Your task to perform on an android device: Search for "razer blade" on amazon, select the first entry, and add it to the cart. Image 0: 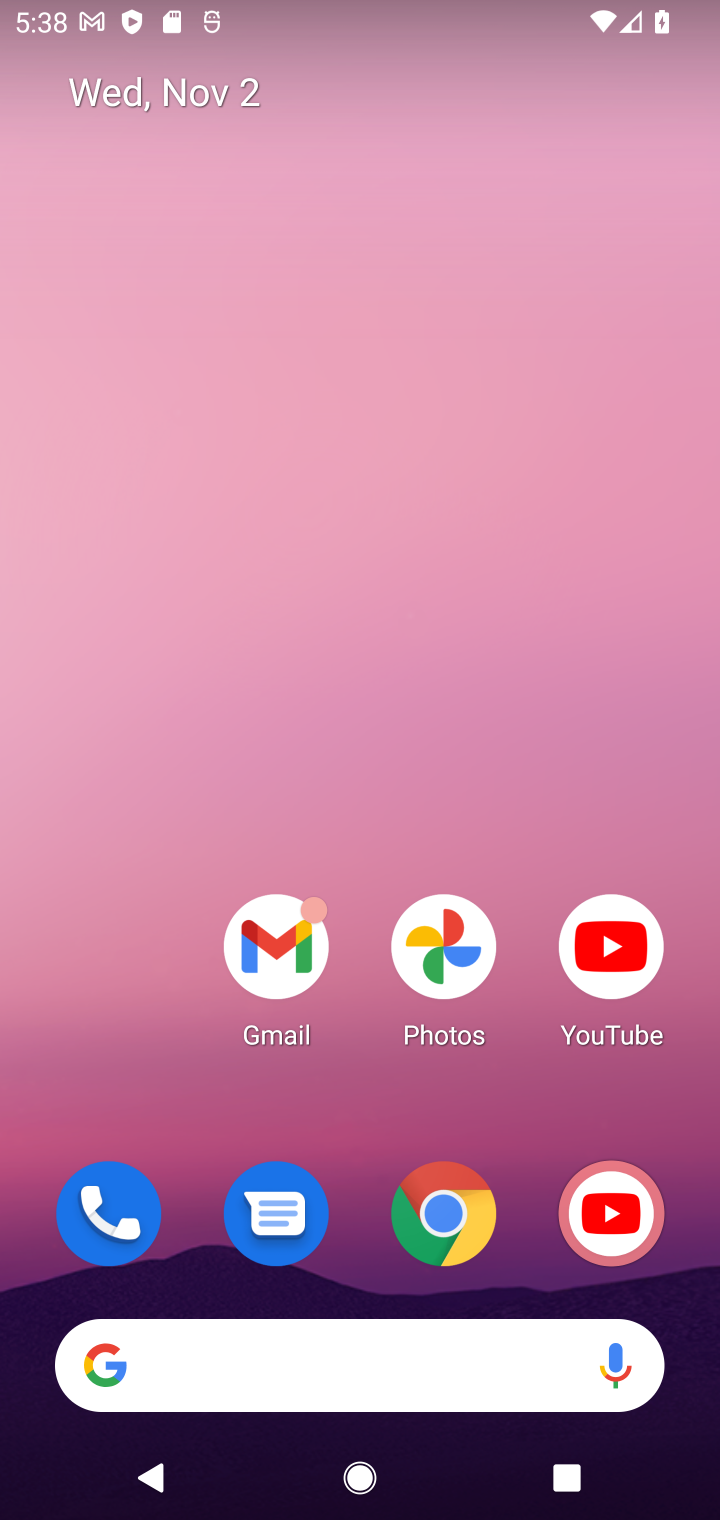
Step 0: click (443, 1218)
Your task to perform on an android device: Search for "razer blade" on amazon, select the first entry, and add it to the cart. Image 1: 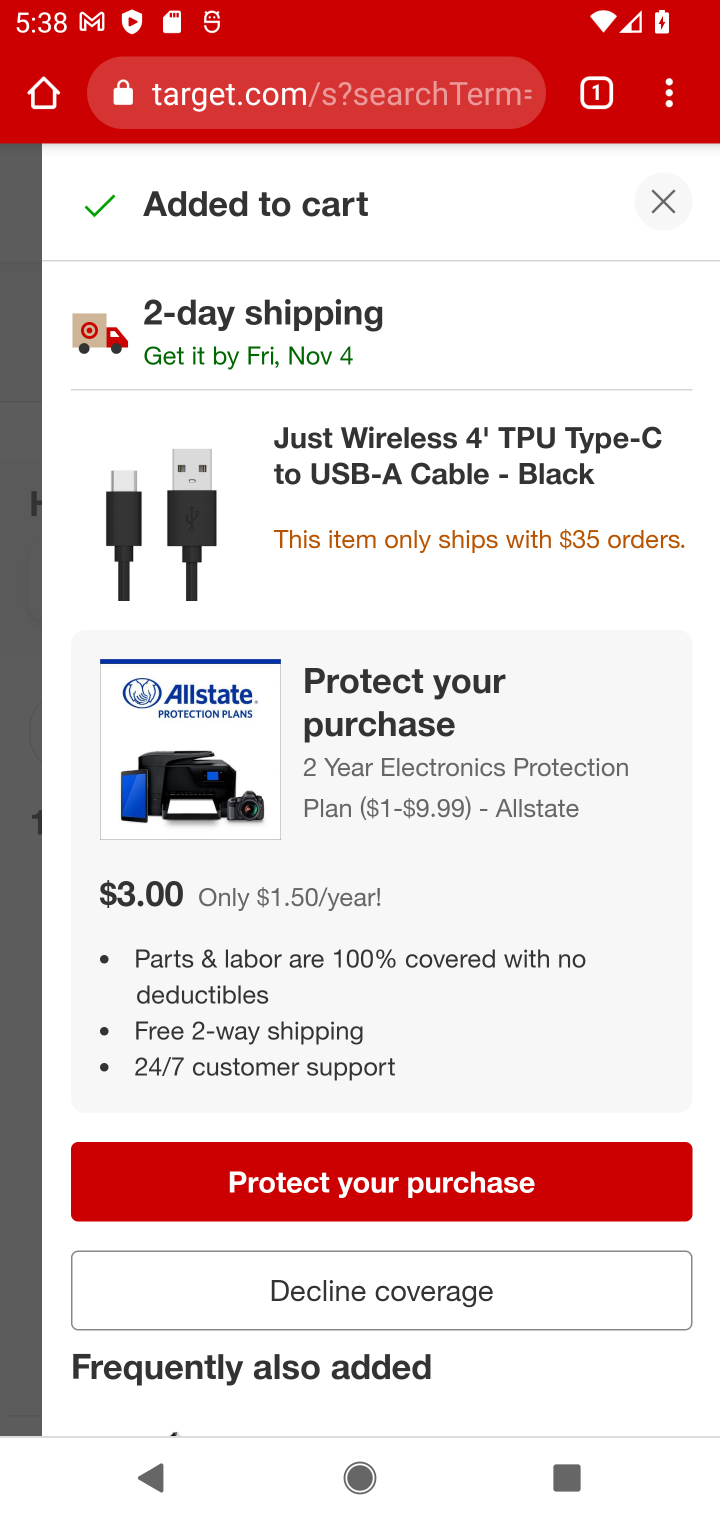
Step 1: click (371, 58)
Your task to perform on an android device: Search for "razer blade" on amazon, select the first entry, and add it to the cart. Image 2: 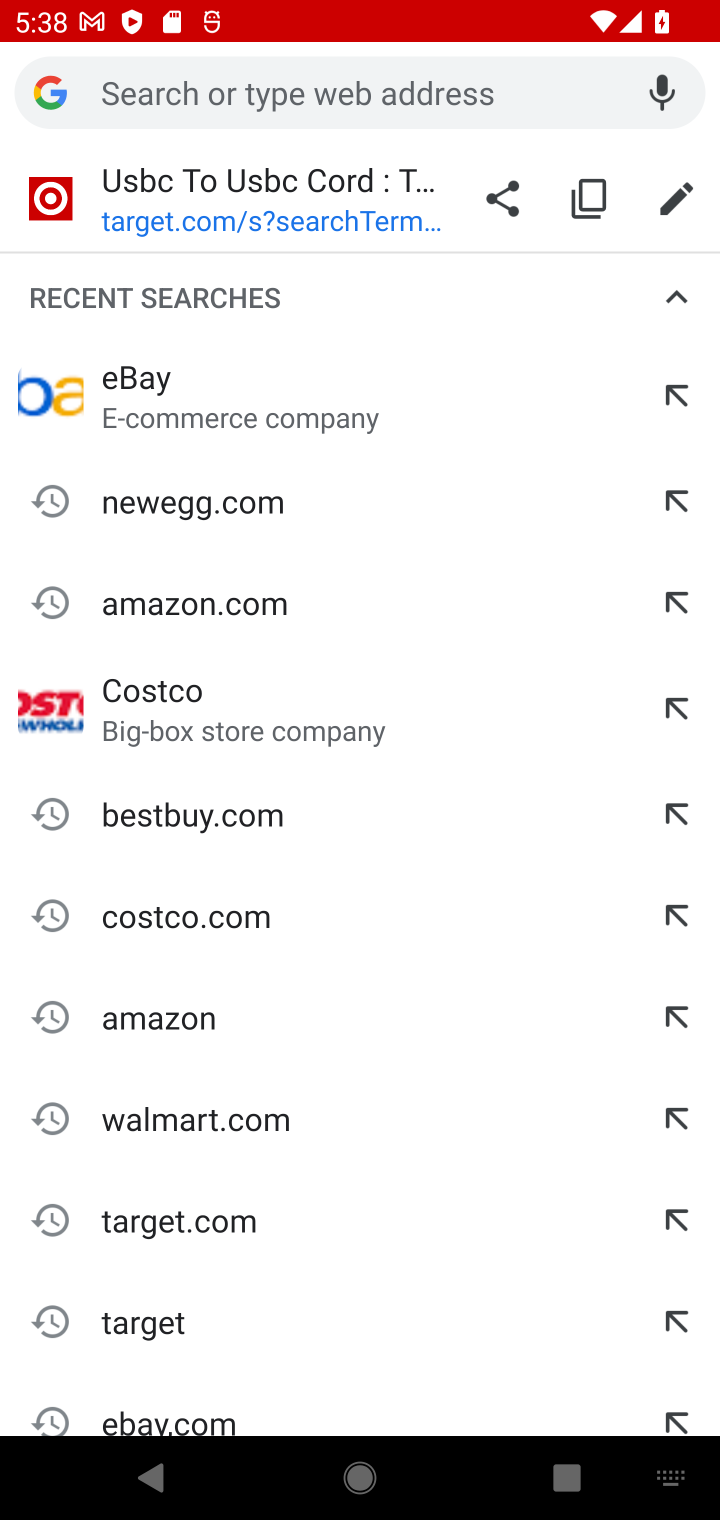
Step 2: type "amazon"
Your task to perform on an android device: Search for "razer blade" on amazon, select the first entry, and add it to the cart. Image 3: 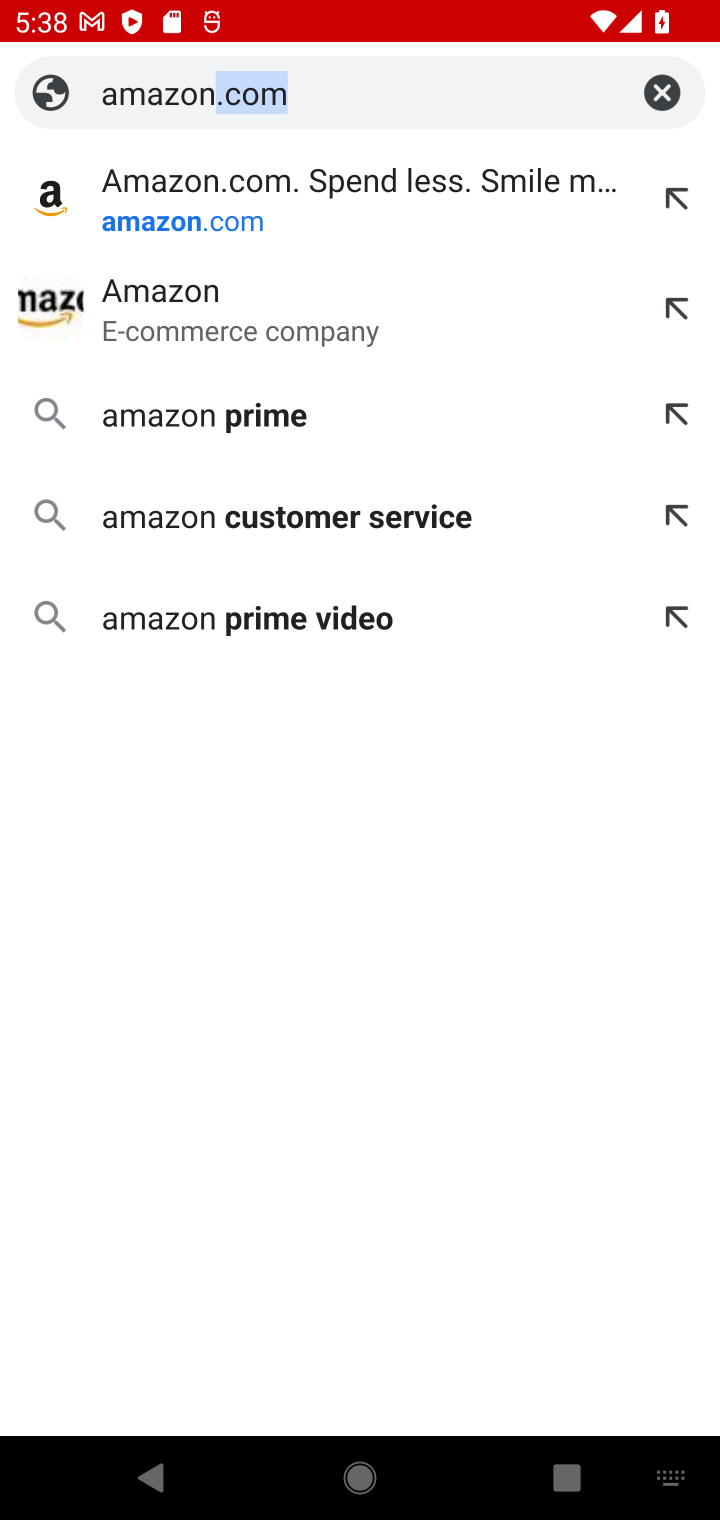
Step 3: click (176, 188)
Your task to perform on an android device: Search for "razer blade" on amazon, select the first entry, and add it to the cart. Image 4: 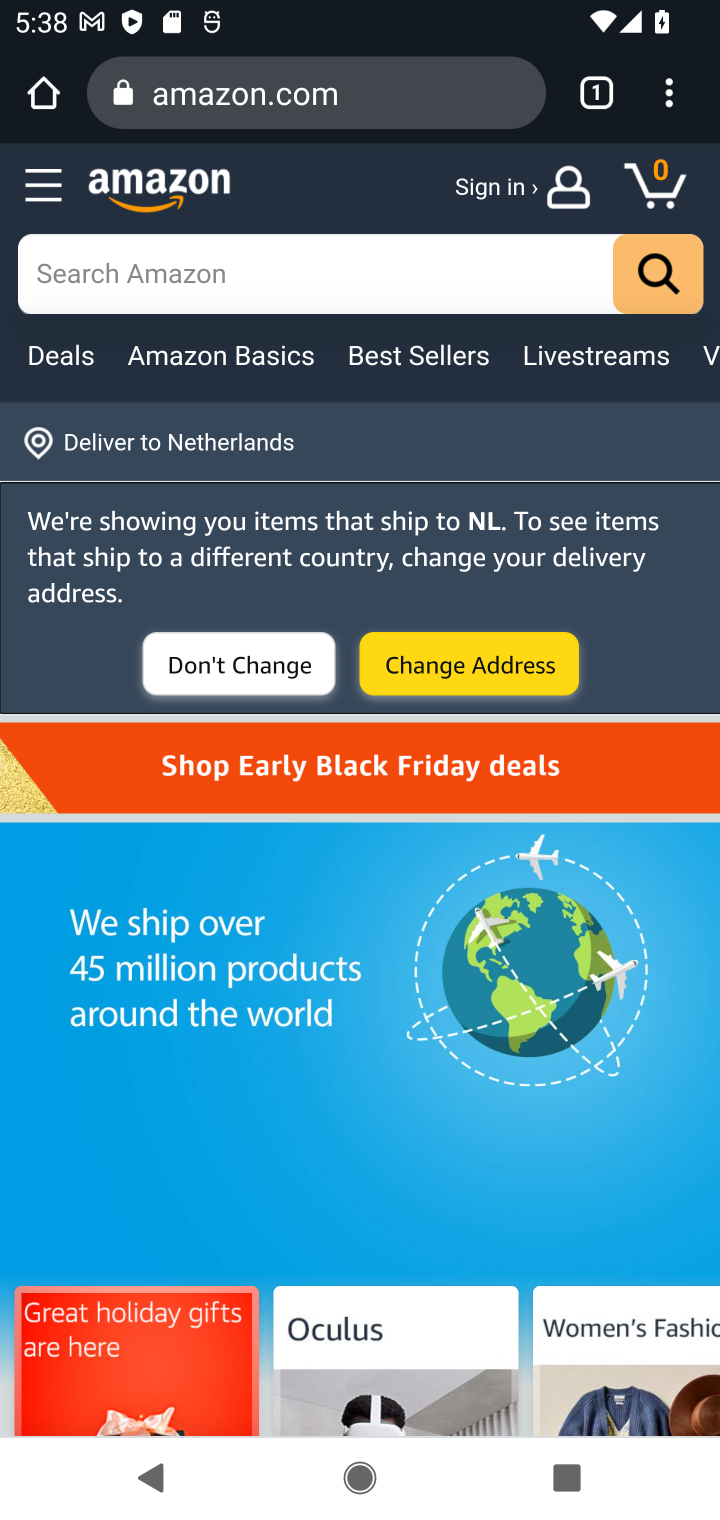
Step 4: click (206, 263)
Your task to perform on an android device: Search for "razer blade" on amazon, select the first entry, and add it to the cart. Image 5: 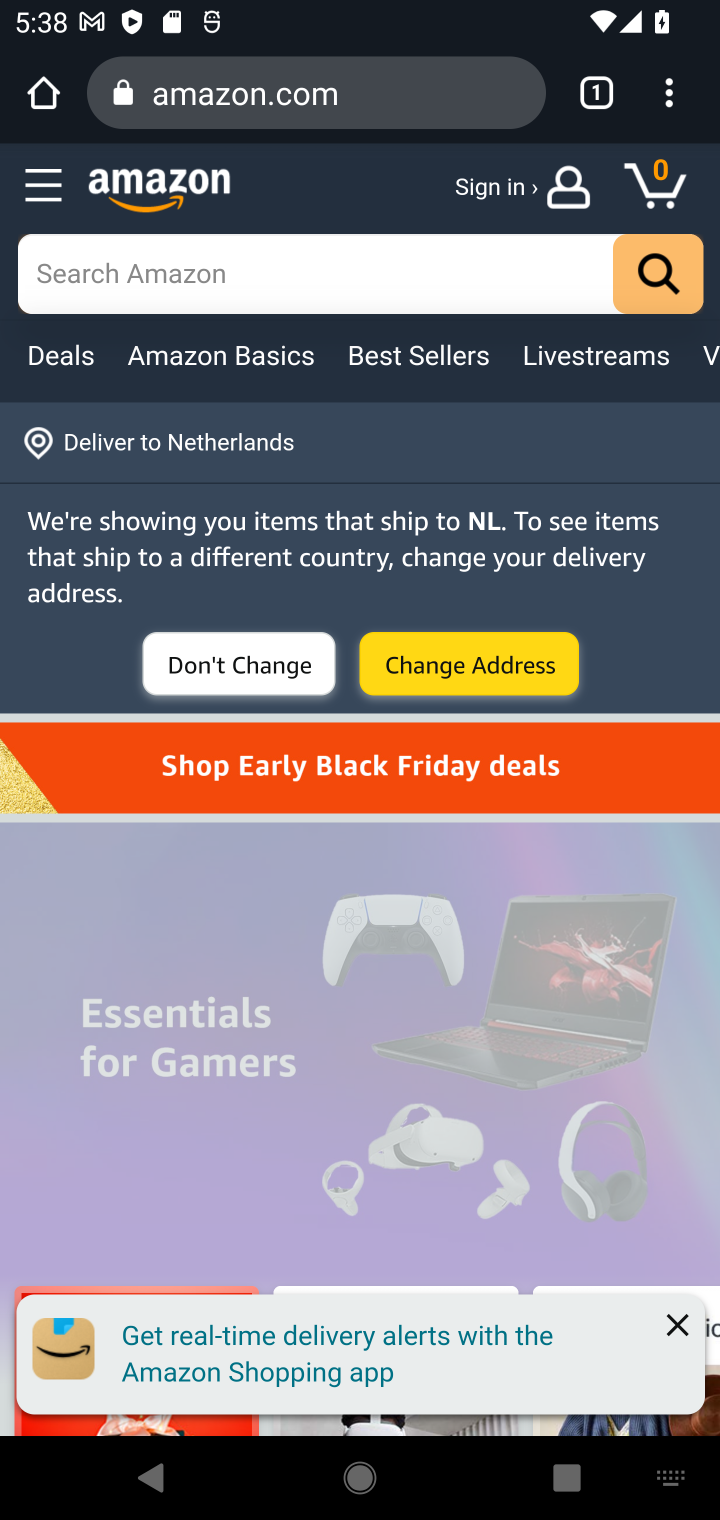
Step 5: click (237, 256)
Your task to perform on an android device: Search for "razer blade" on amazon, select the first entry, and add it to the cart. Image 6: 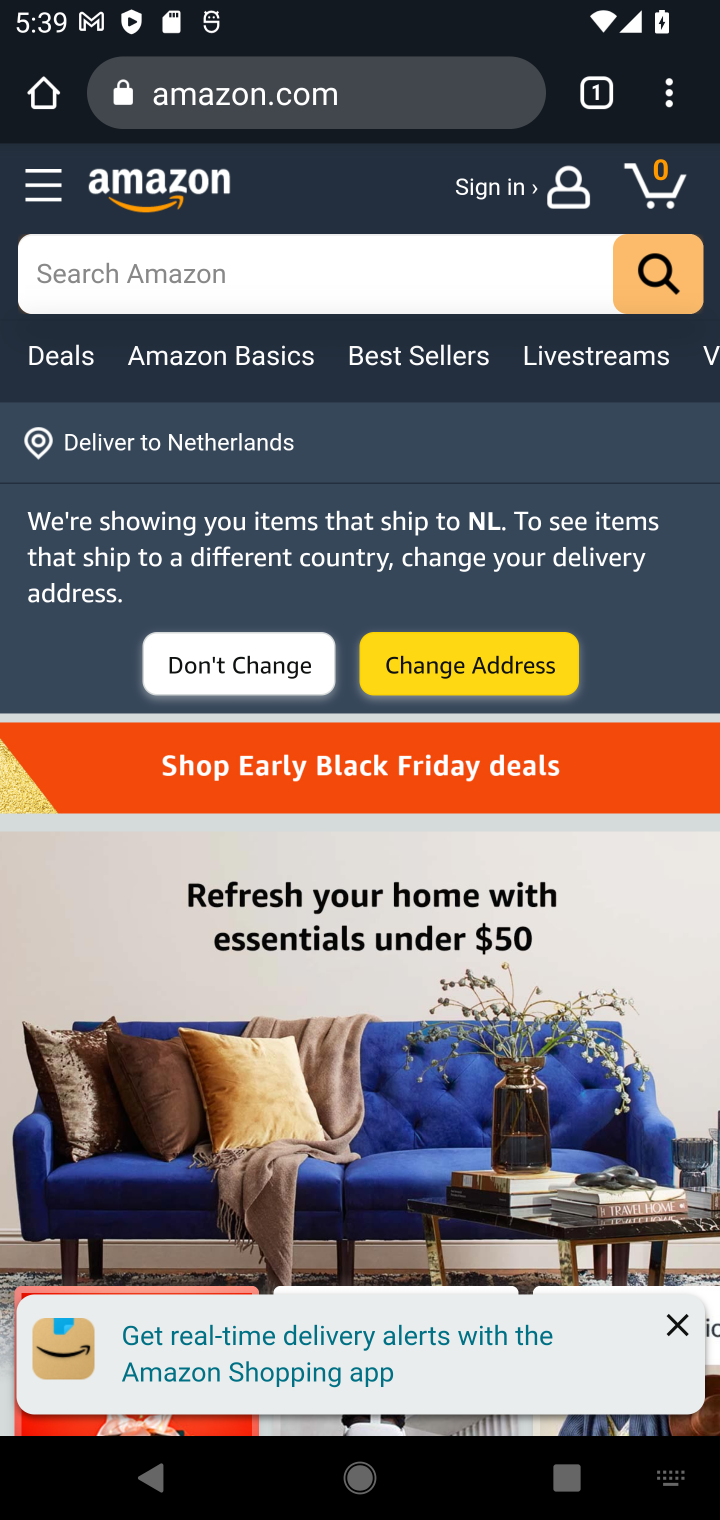
Step 6: type "razer blade"
Your task to perform on an android device: Search for "razer blade" on amazon, select the first entry, and add it to the cart. Image 7: 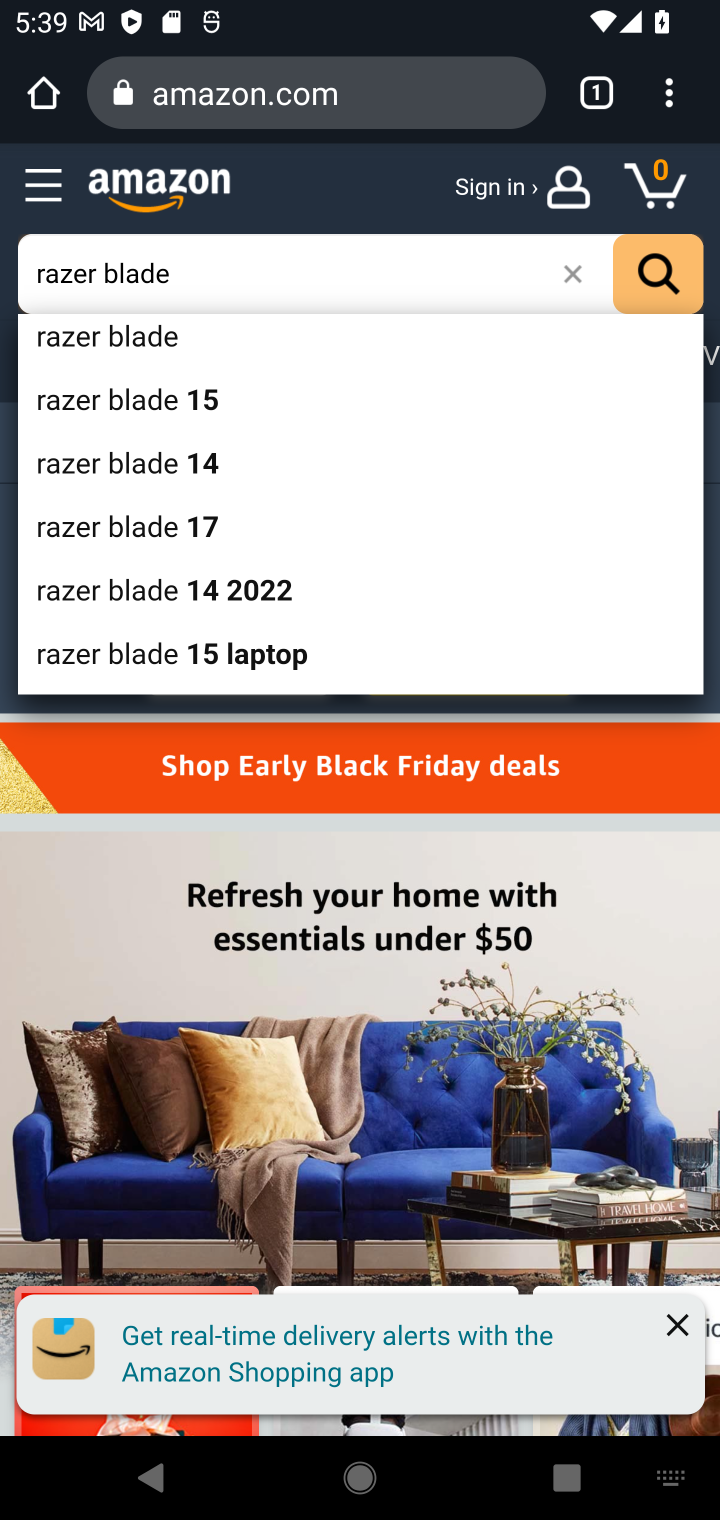
Step 7: click (99, 315)
Your task to perform on an android device: Search for "razer blade" on amazon, select the first entry, and add it to the cart. Image 8: 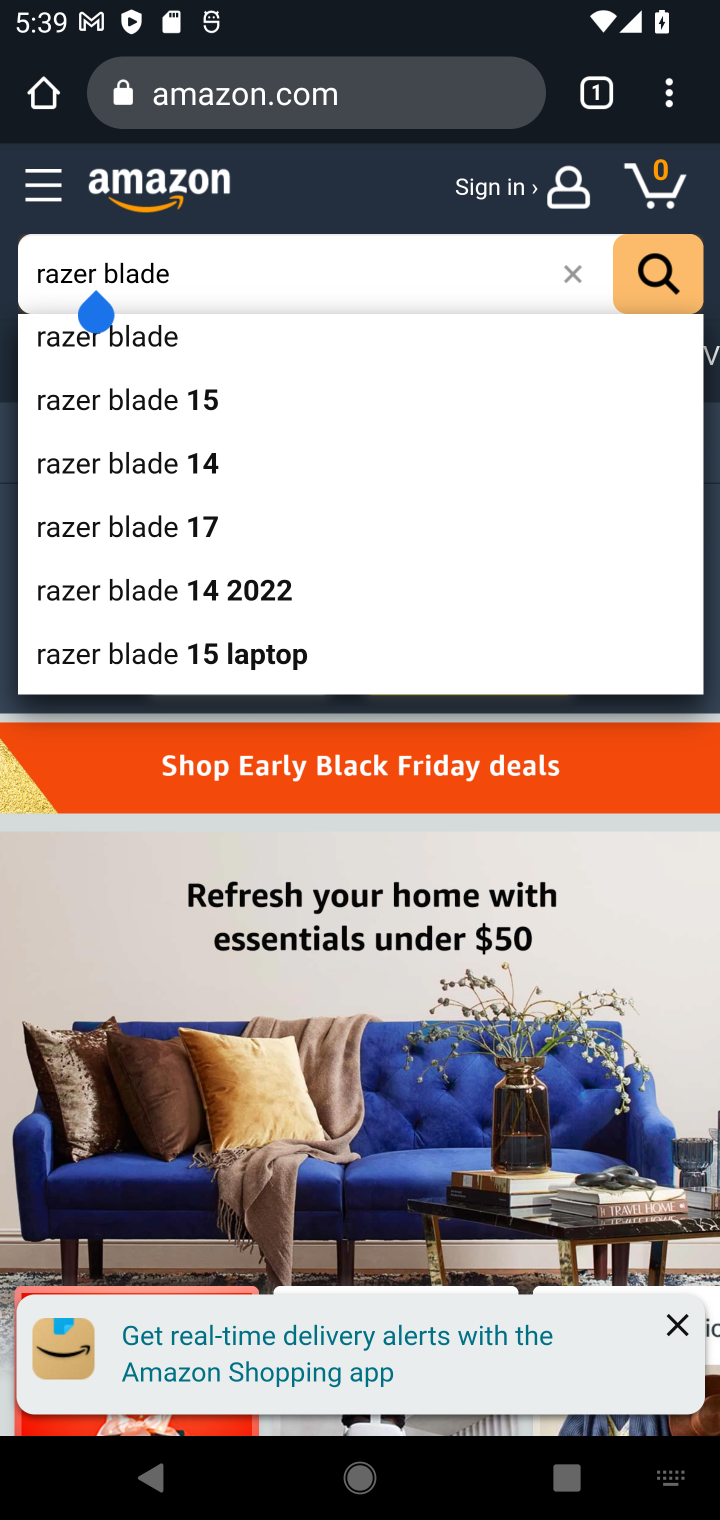
Step 8: click (132, 332)
Your task to perform on an android device: Search for "razer blade" on amazon, select the first entry, and add it to the cart. Image 9: 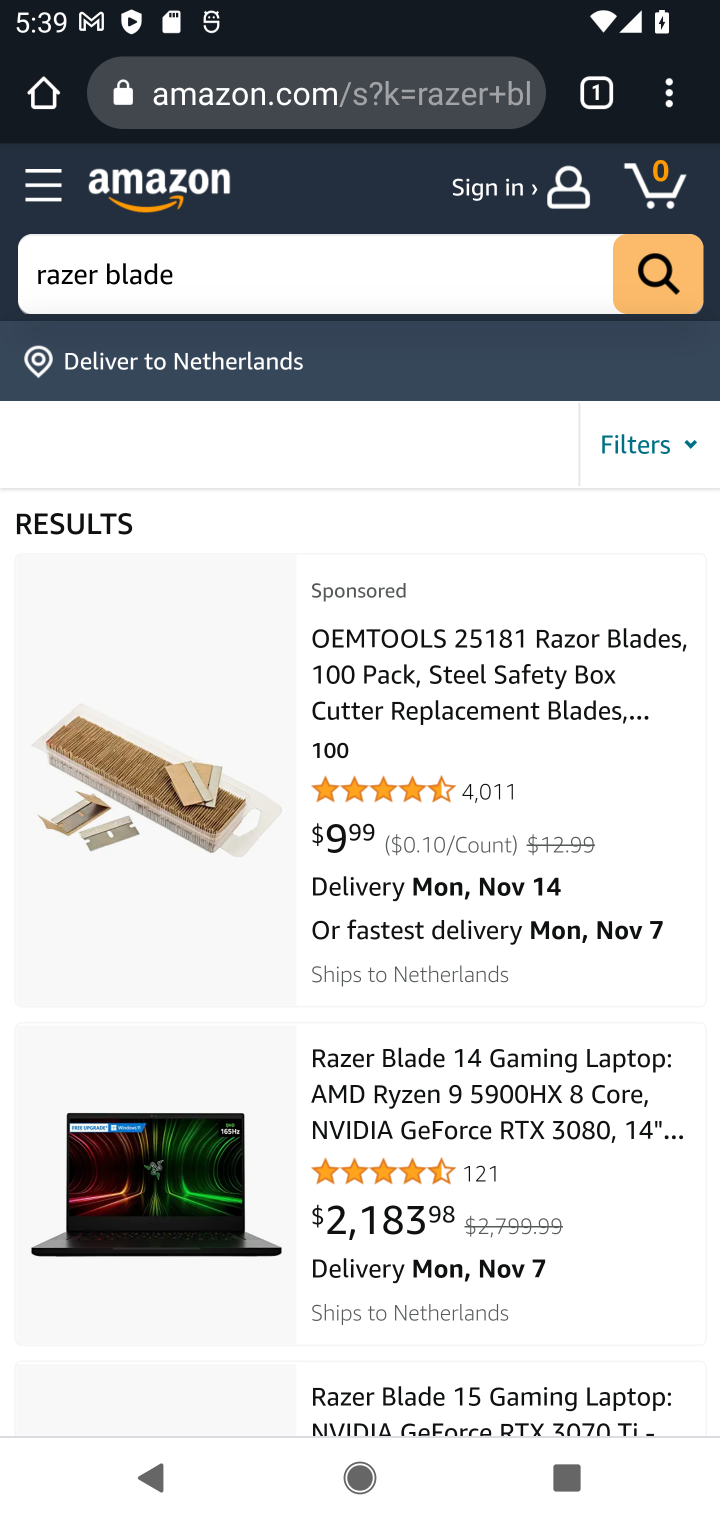
Step 9: click (411, 1071)
Your task to perform on an android device: Search for "razer blade" on amazon, select the first entry, and add it to the cart. Image 10: 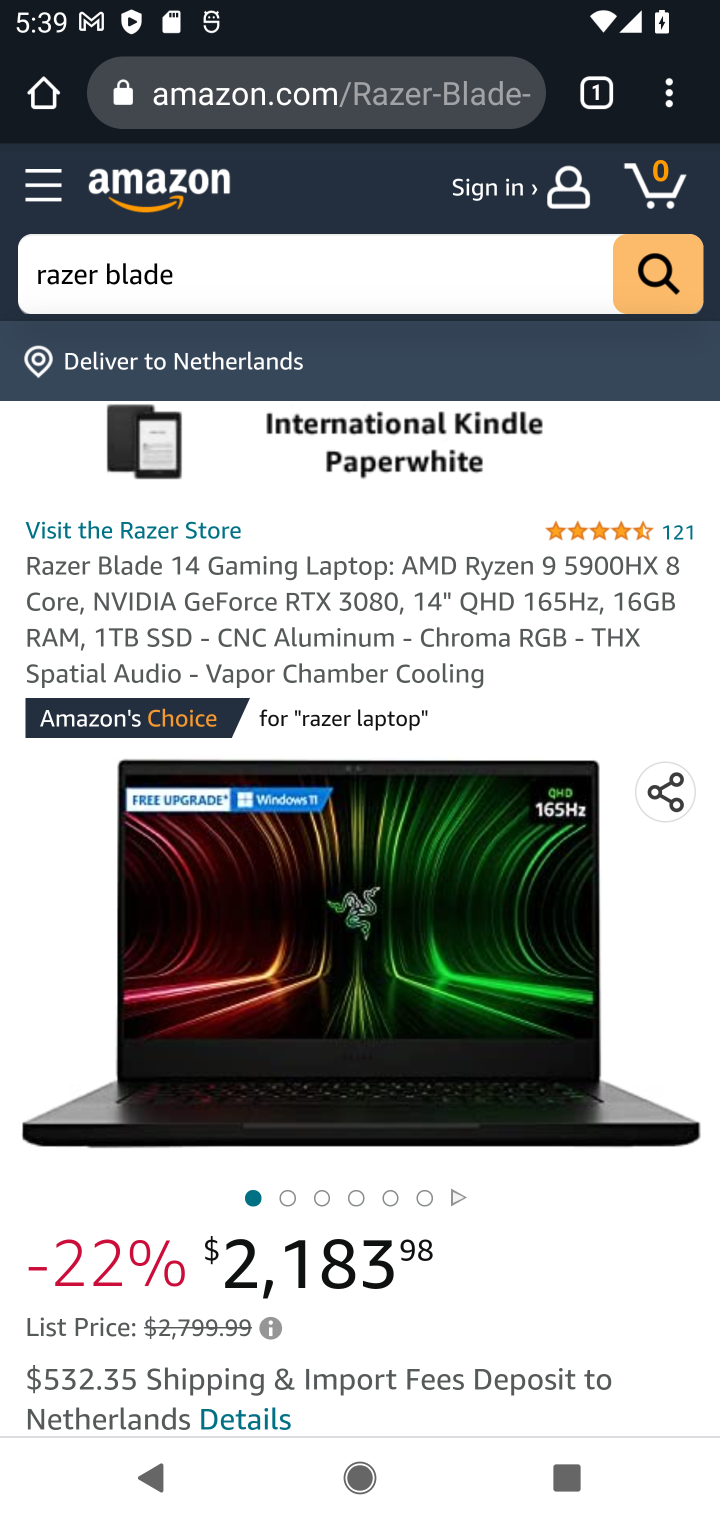
Step 10: drag from (552, 1283) to (516, 755)
Your task to perform on an android device: Search for "razer blade" on amazon, select the first entry, and add it to the cart. Image 11: 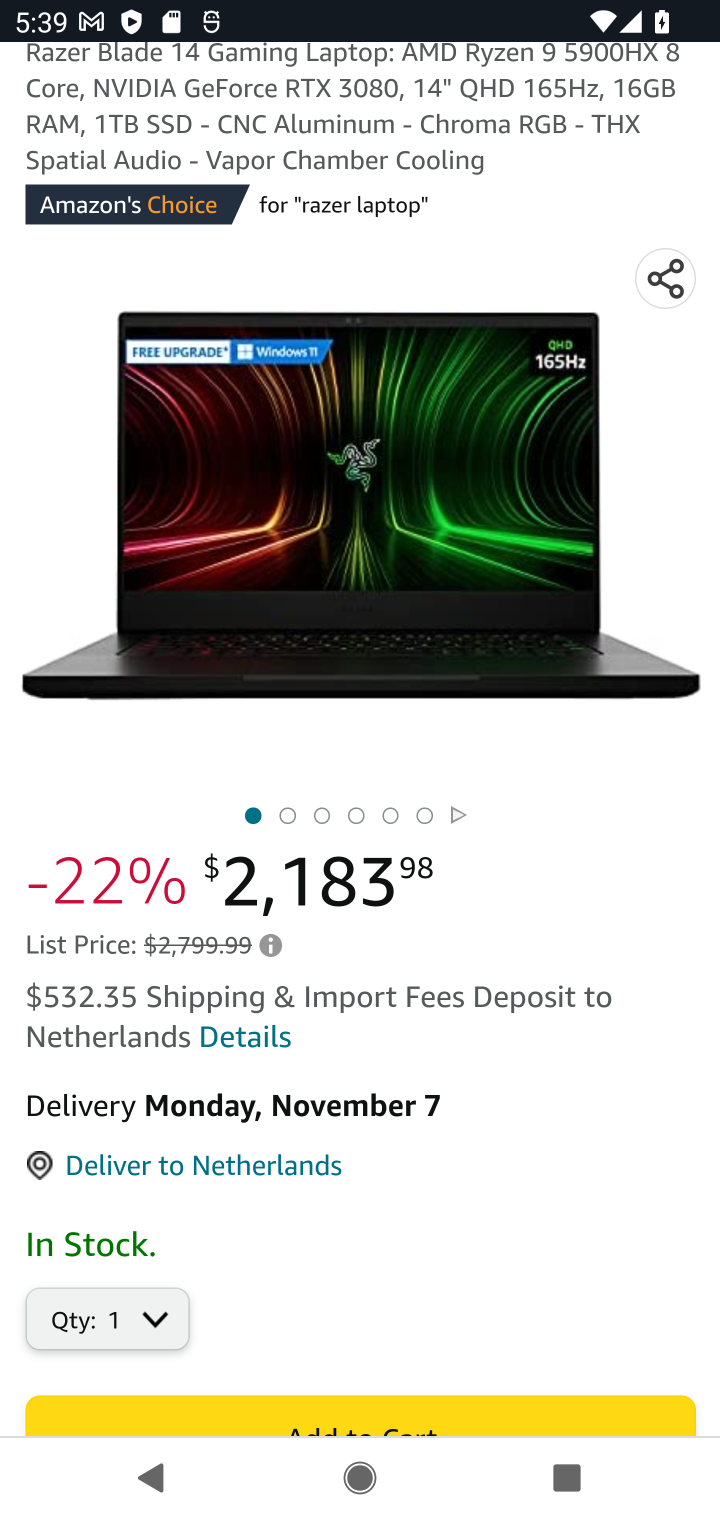
Step 11: drag from (440, 1180) to (413, 908)
Your task to perform on an android device: Search for "razer blade" on amazon, select the first entry, and add it to the cart. Image 12: 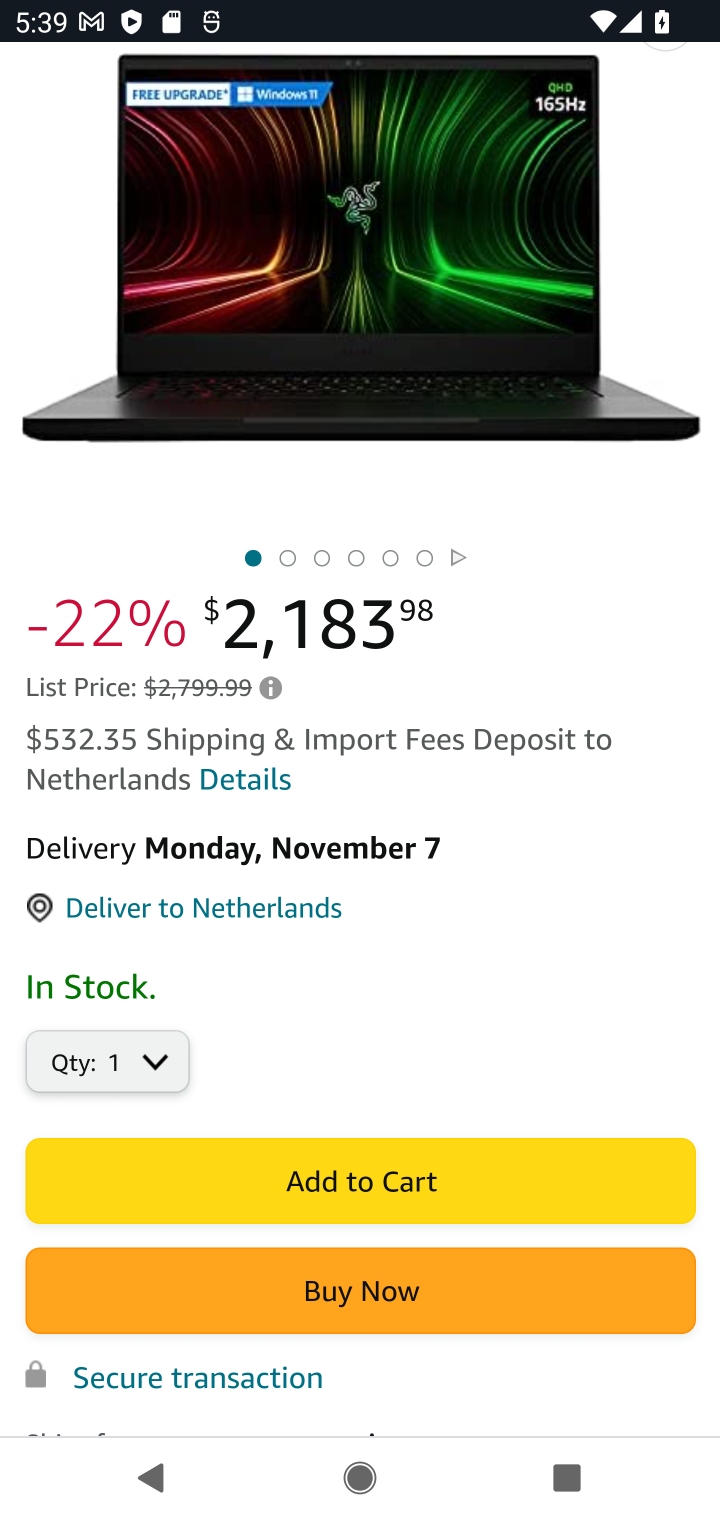
Step 12: click (338, 1166)
Your task to perform on an android device: Search for "razer blade" on amazon, select the first entry, and add it to the cart. Image 13: 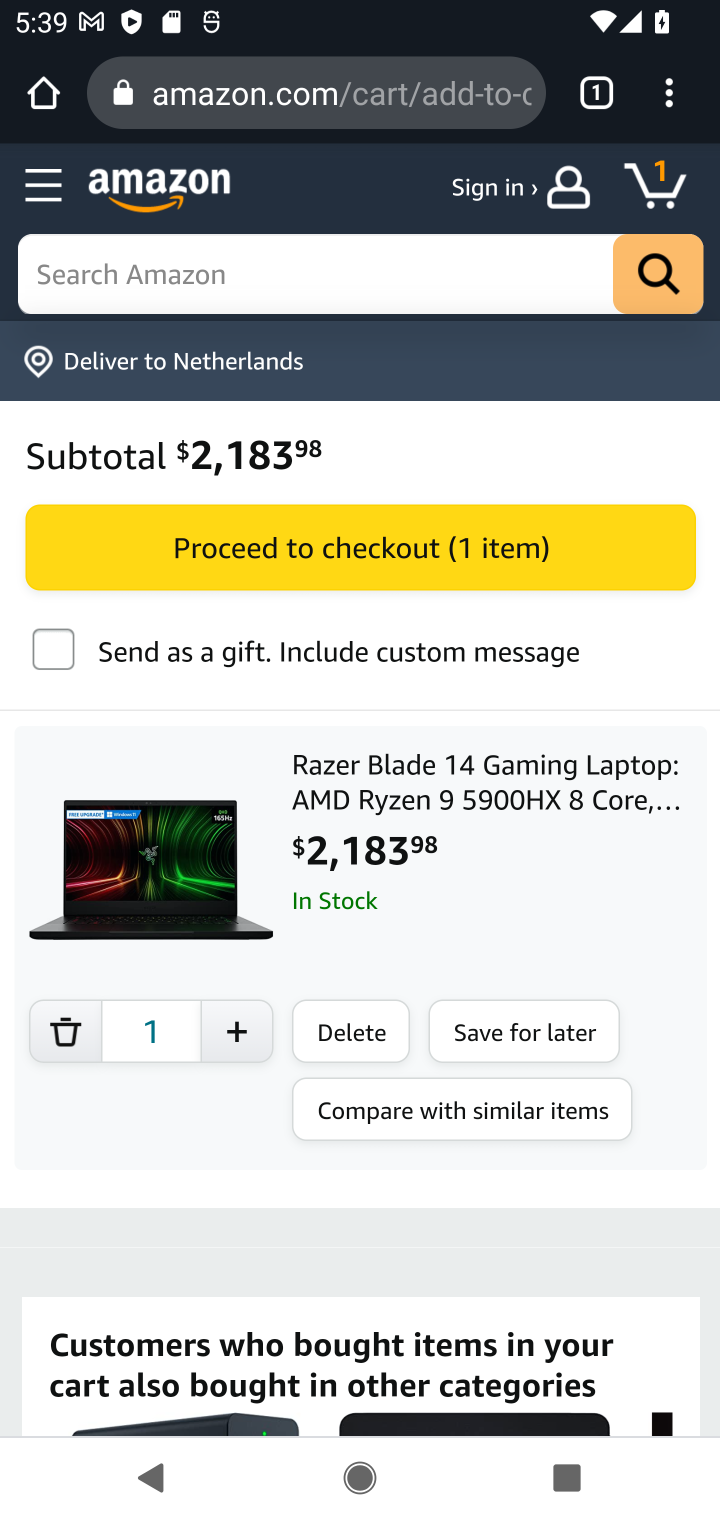
Step 13: task complete